Your task to perform on an android device: turn off javascript in the chrome app Image 0: 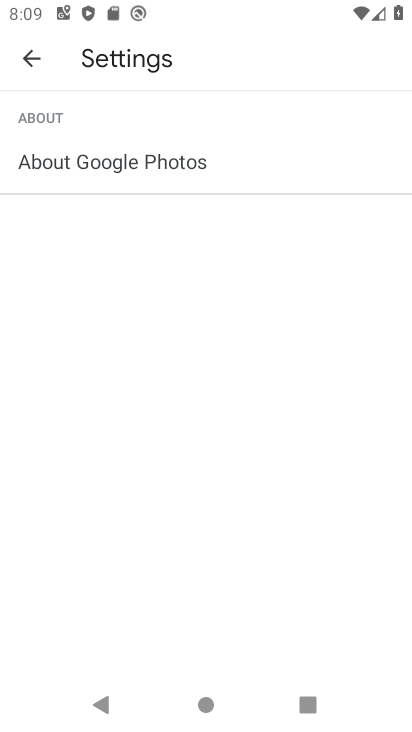
Step 0: press home button
Your task to perform on an android device: turn off javascript in the chrome app Image 1: 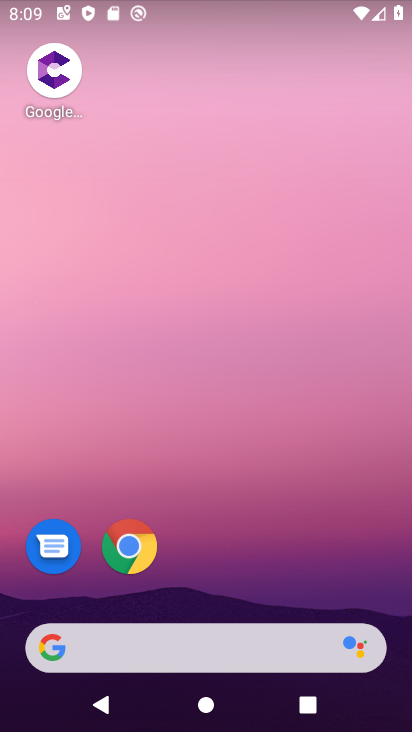
Step 1: click (113, 545)
Your task to perform on an android device: turn off javascript in the chrome app Image 2: 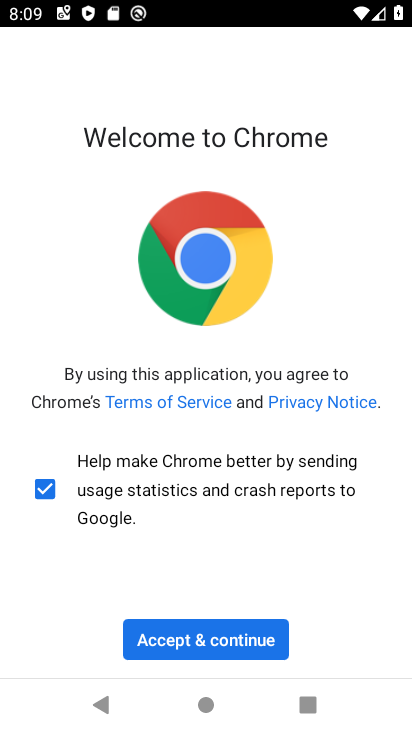
Step 2: click (201, 640)
Your task to perform on an android device: turn off javascript in the chrome app Image 3: 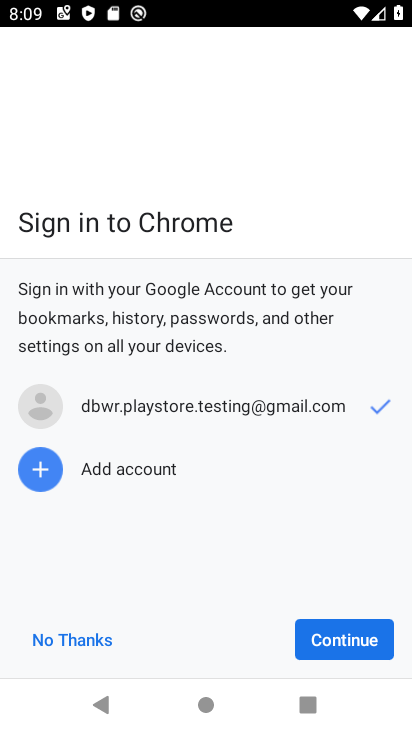
Step 3: click (306, 639)
Your task to perform on an android device: turn off javascript in the chrome app Image 4: 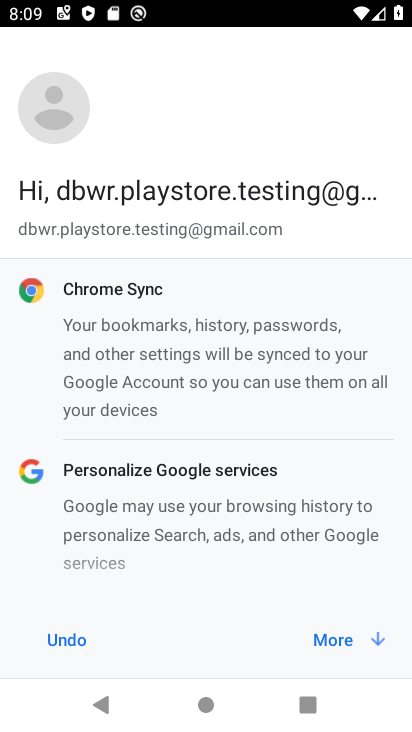
Step 4: click (335, 643)
Your task to perform on an android device: turn off javascript in the chrome app Image 5: 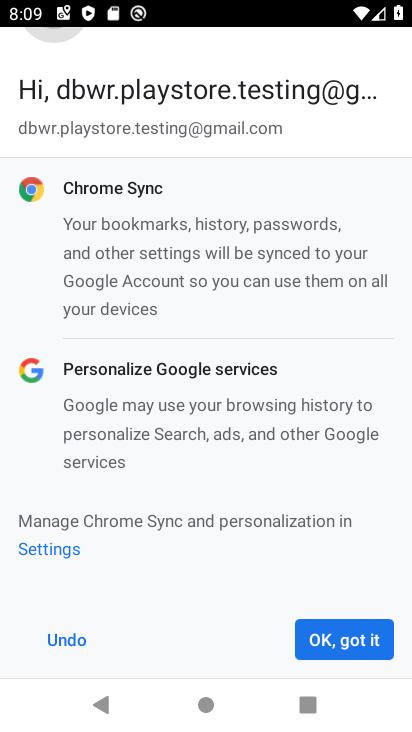
Step 5: click (335, 643)
Your task to perform on an android device: turn off javascript in the chrome app Image 6: 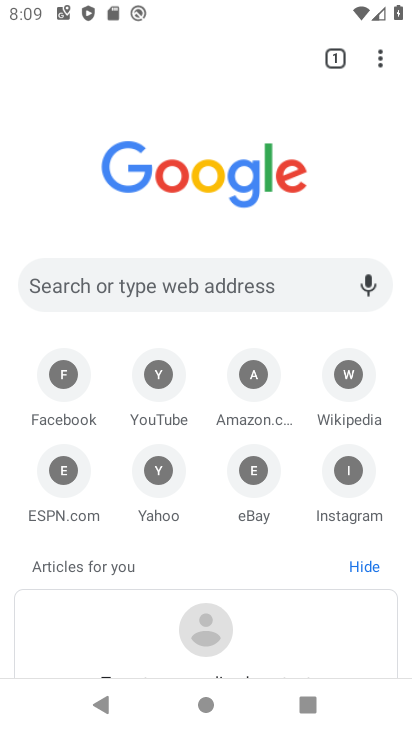
Step 6: click (378, 58)
Your task to perform on an android device: turn off javascript in the chrome app Image 7: 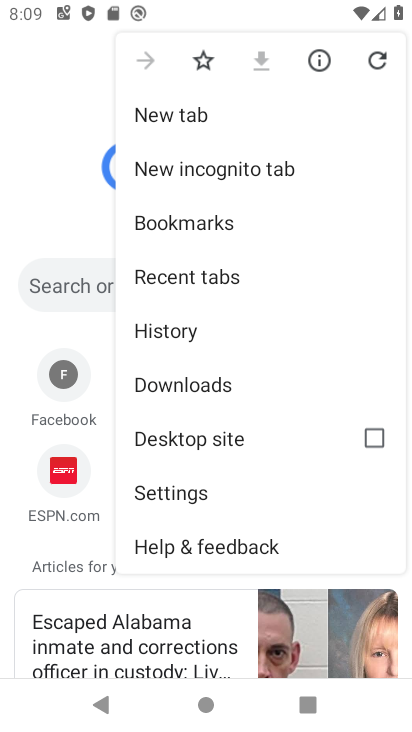
Step 7: click (212, 495)
Your task to perform on an android device: turn off javascript in the chrome app Image 8: 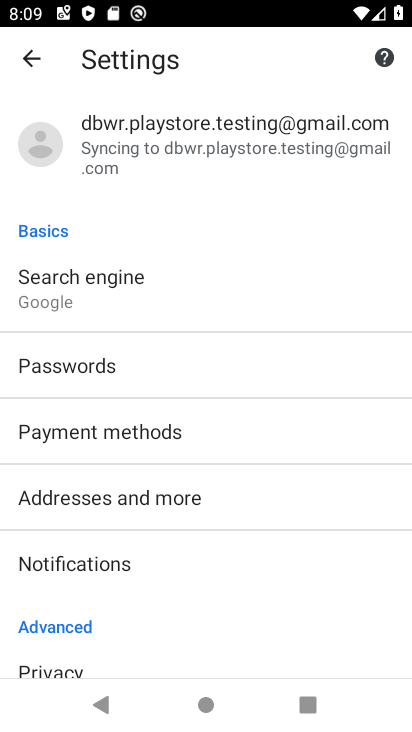
Step 8: drag from (206, 642) to (208, 342)
Your task to perform on an android device: turn off javascript in the chrome app Image 9: 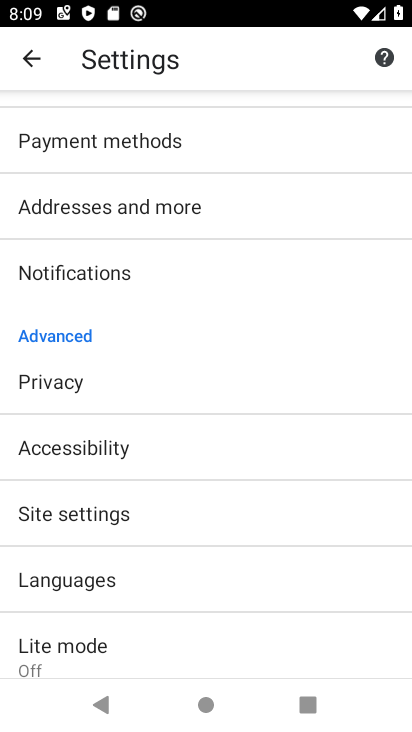
Step 9: click (105, 518)
Your task to perform on an android device: turn off javascript in the chrome app Image 10: 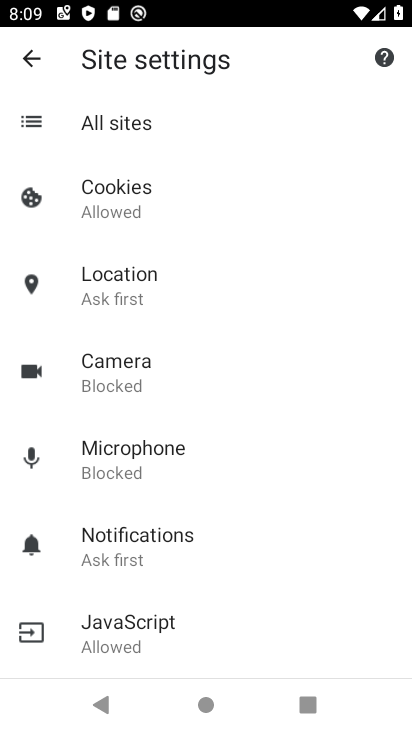
Step 10: click (161, 635)
Your task to perform on an android device: turn off javascript in the chrome app Image 11: 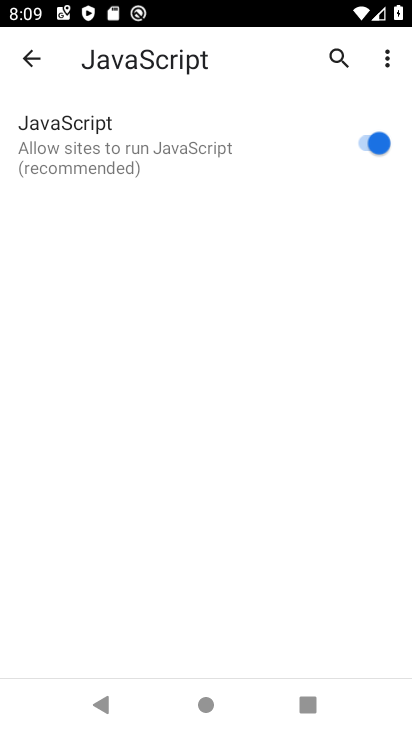
Step 11: click (372, 140)
Your task to perform on an android device: turn off javascript in the chrome app Image 12: 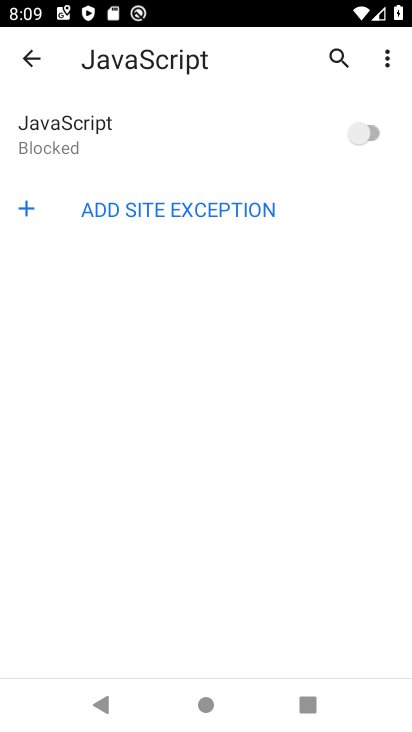
Step 12: task complete